Your task to perform on an android device: see tabs open on other devices in the chrome app Image 0: 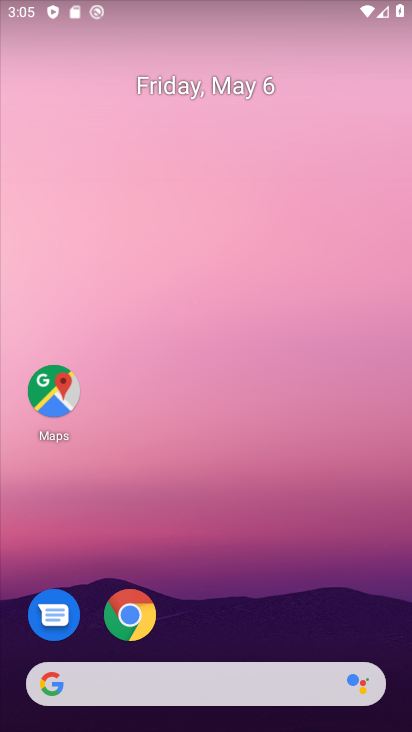
Step 0: click (135, 617)
Your task to perform on an android device: see tabs open on other devices in the chrome app Image 1: 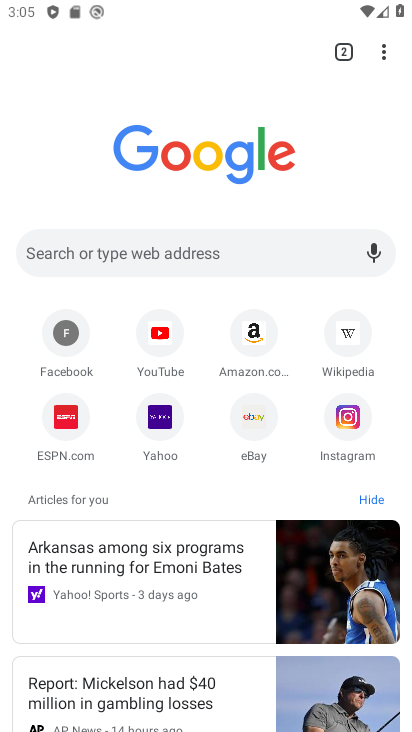
Step 1: task complete